Your task to perform on an android device: turn vacation reply on in the gmail app Image 0: 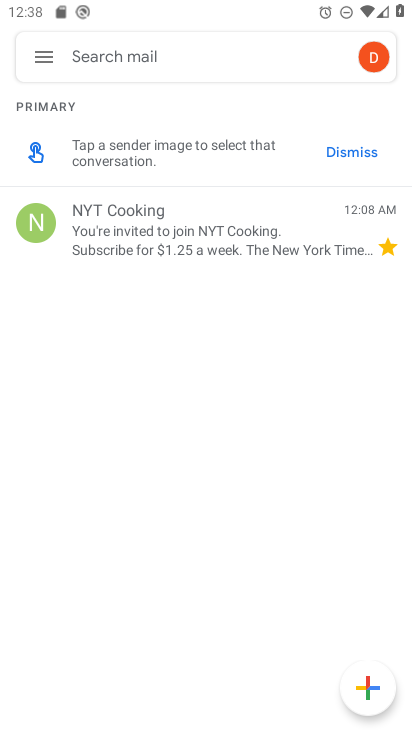
Step 0: click (35, 57)
Your task to perform on an android device: turn vacation reply on in the gmail app Image 1: 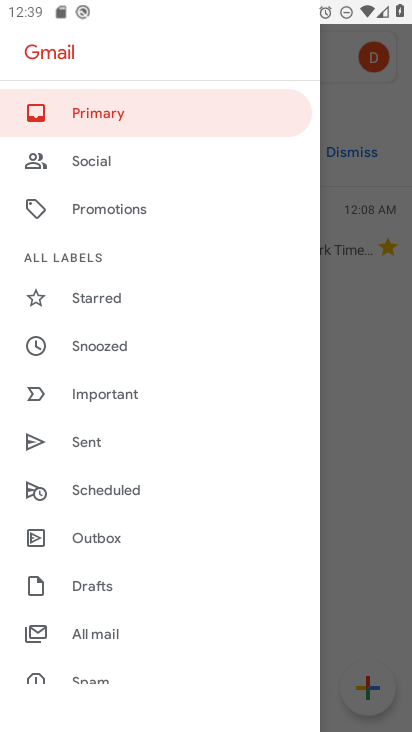
Step 1: drag from (120, 652) to (118, 225)
Your task to perform on an android device: turn vacation reply on in the gmail app Image 2: 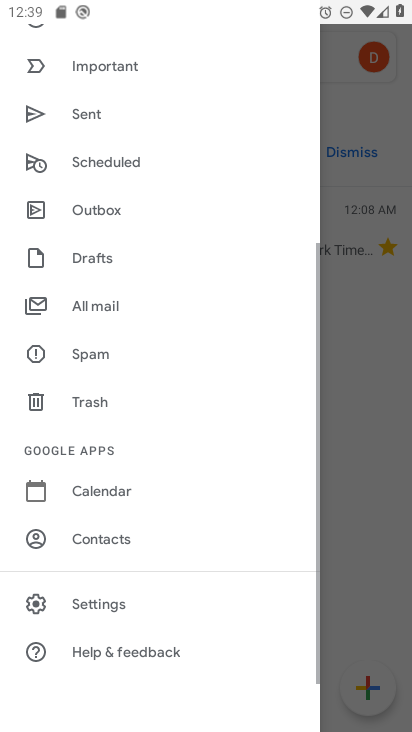
Step 2: click (102, 607)
Your task to perform on an android device: turn vacation reply on in the gmail app Image 3: 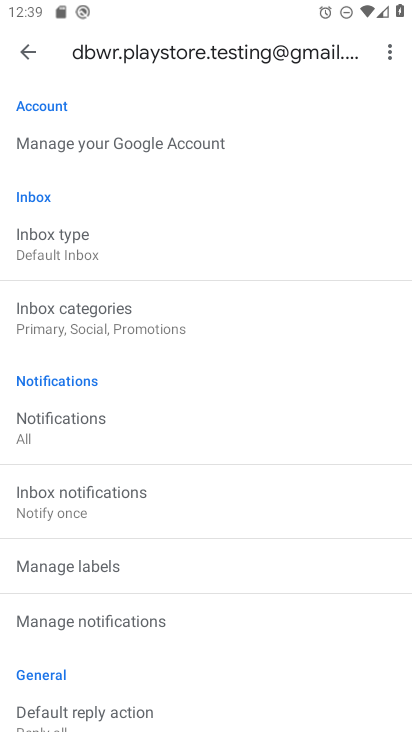
Step 3: drag from (94, 683) to (179, 223)
Your task to perform on an android device: turn vacation reply on in the gmail app Image 4: 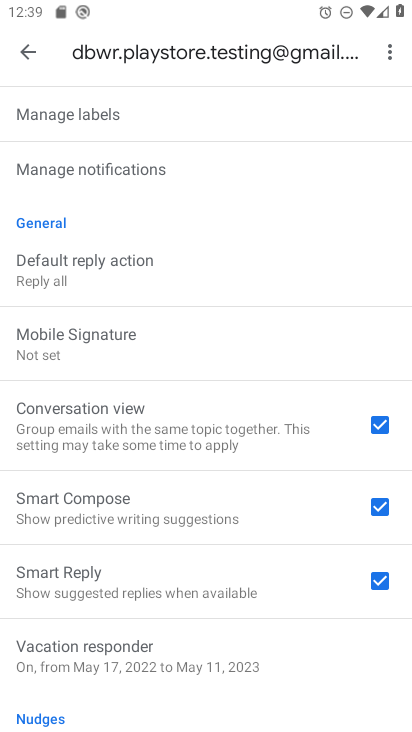
Step 4: click (120, 669)
Your task to perform on an android device: turn vacation reply on in the gmail app Image 5: 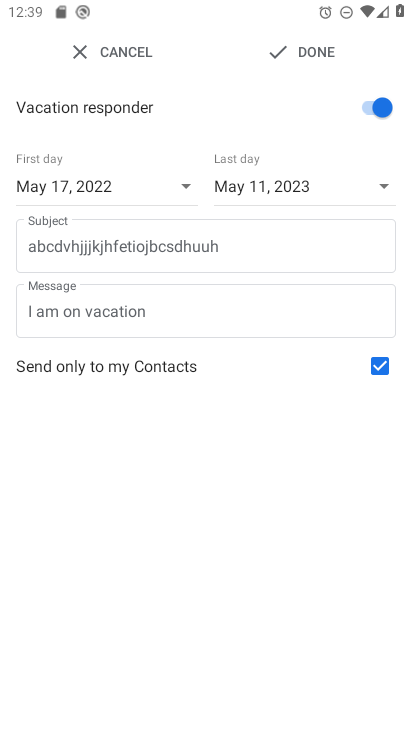
Step 5: click (123, 653)
Your task to perform on an android device: turn vacation reply on in the gmail app Image 6: 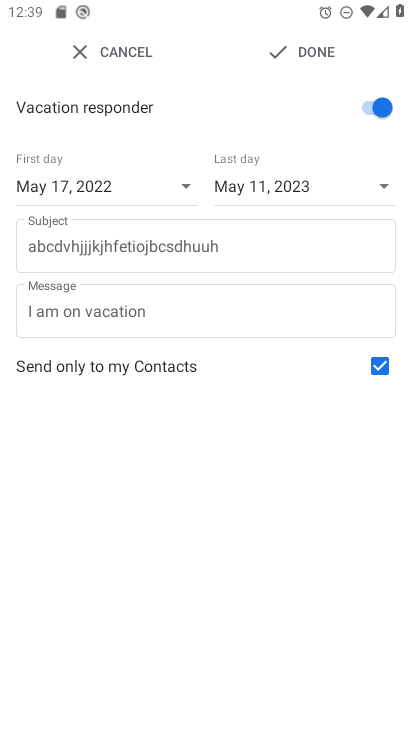
Step 6: click (307, 48)
Your task to perform on an android device: turn vacation reply on in the gmail app Image 7: 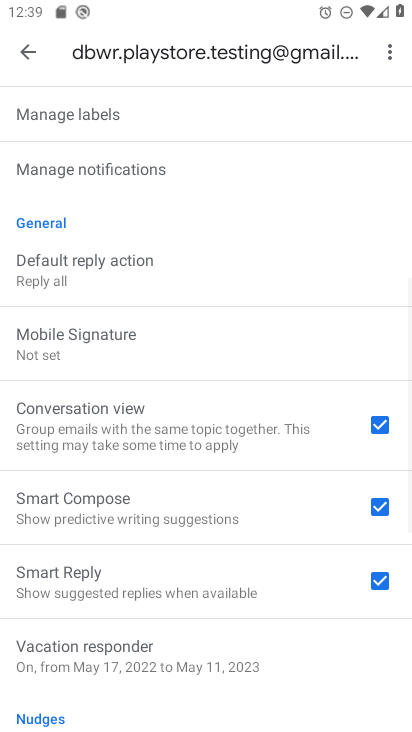
Step 7: task complete